Your task to perform on an android device: star an email in the gmail app Image 0: 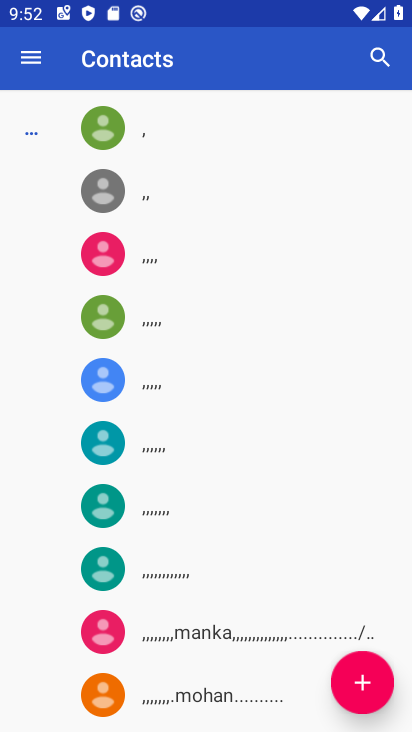
Step 0: press home button
Your task to perform on an android device: star an email in the gmail app Image 1: 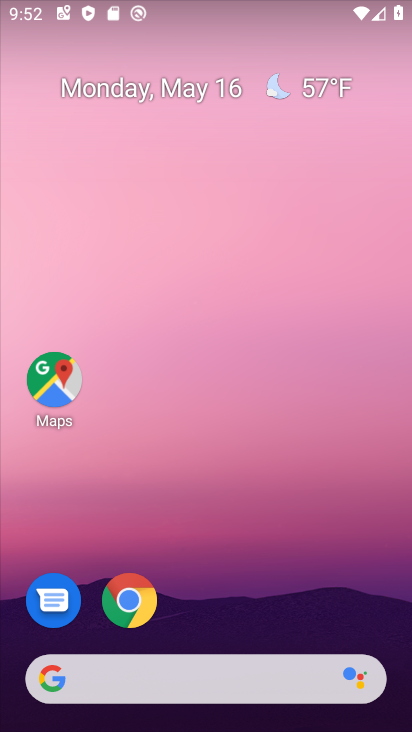
Step 1: drag from (346, 615) to (337, 212)
Your task to perform on an android device: star an email in the gmail app Image 2: 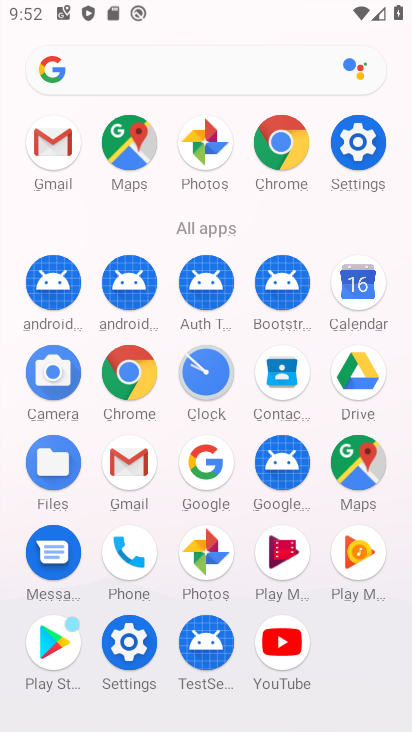
Step 2: click (126, 478)
Your task to perform on an android device: star an email in the gmail app Image 3: 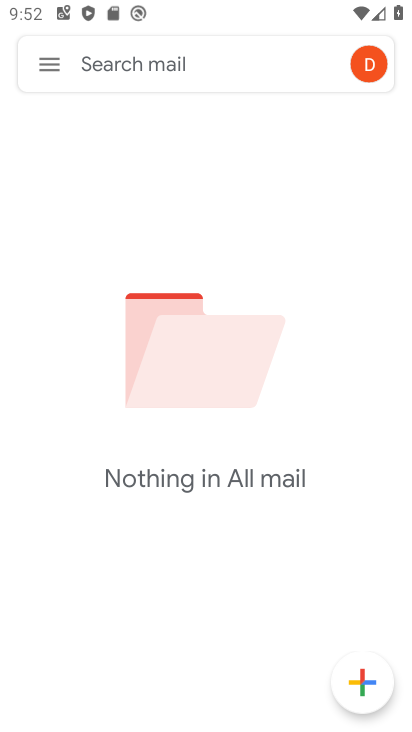
Step 3: task complete